Your task to perform on an android device: Go to Wikipedia Image 0: 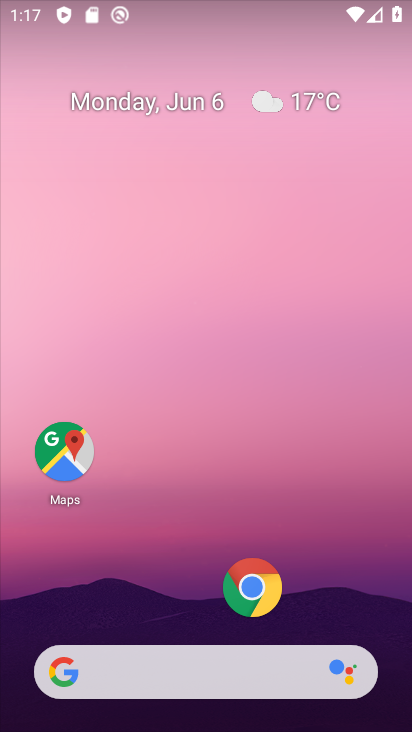
Step 0: click (252, 582)
Your task to perform on an android device: Go to Wikipedia Image 1: 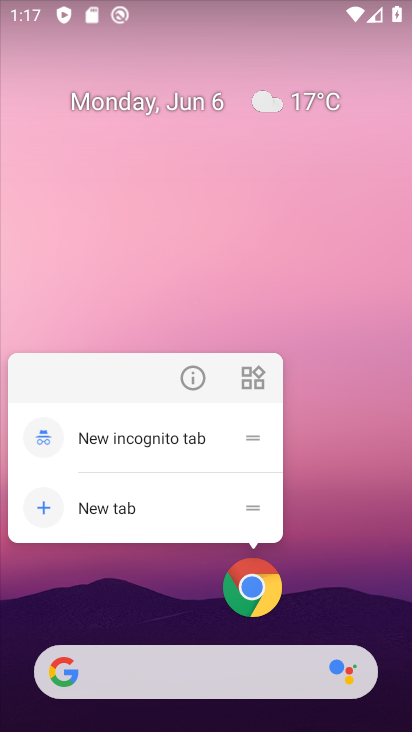
Step 1: click (252, 582)
Your task to perform on an android device: Go to Wikipedia Image 2: 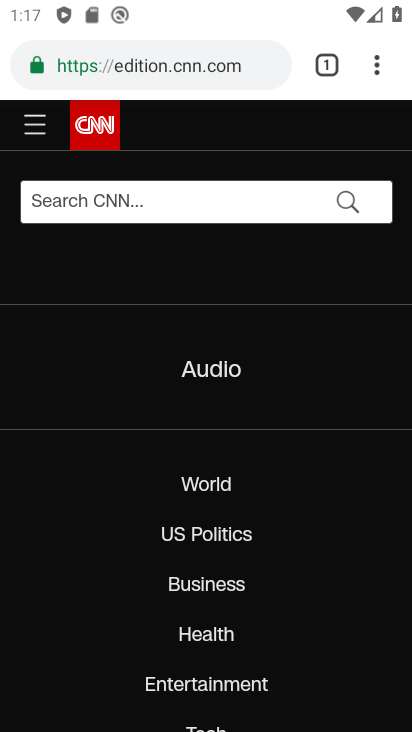
Step 2: click (170, 54)
Your task to perform on an android device: Go to Wikipedia Image 3: 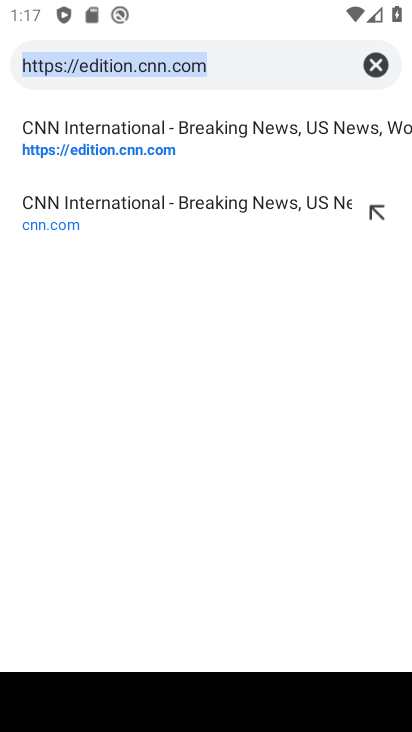
Step 3: type "wikipedia"
Your task to perform on an android device: Go to Wikipedia Image 4: 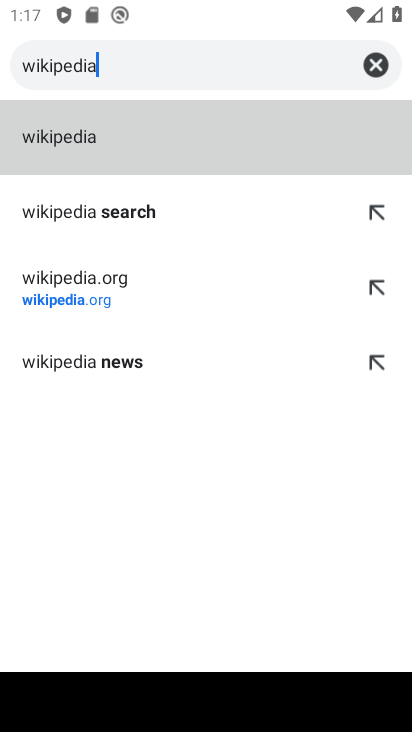
Step 4: click (119, 144)
Your task to perform on an android device: Go to Wikipedia Image 5: 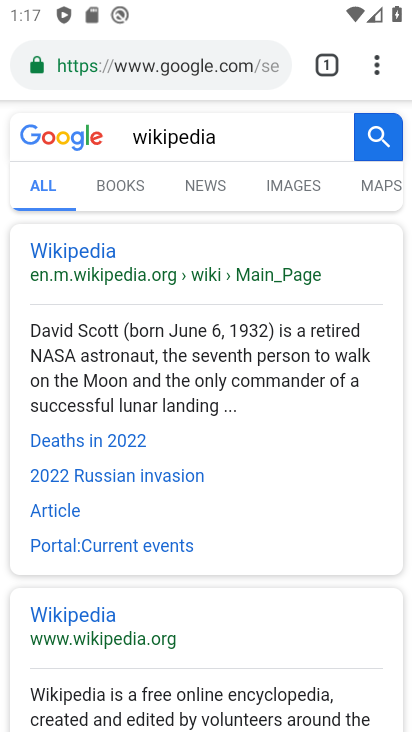
Step 5: task complete